Your task to perform on an android device: Go to notification settings Image 0: 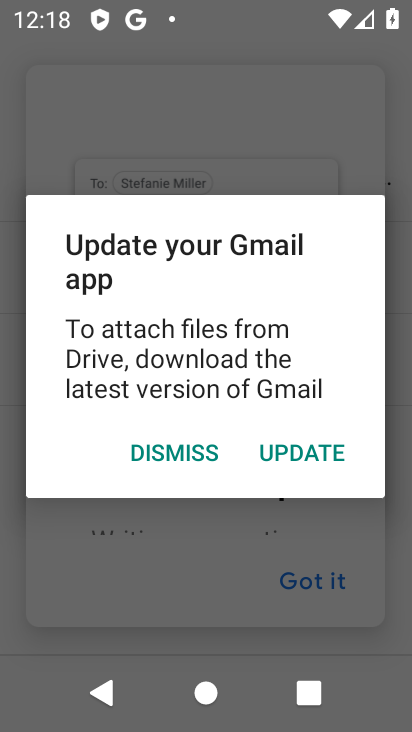
Step 0: press back button
Your task to perform on an android device: Go to notification settings Image 1: 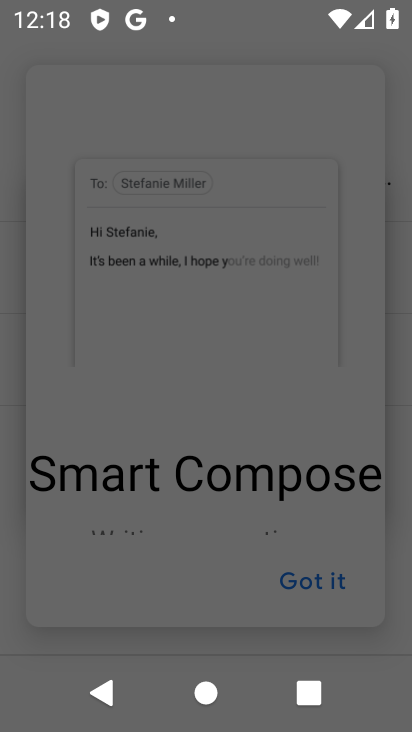
Step 1: press home button
Your task to perform on an android device: Go to notification settings Image 2: 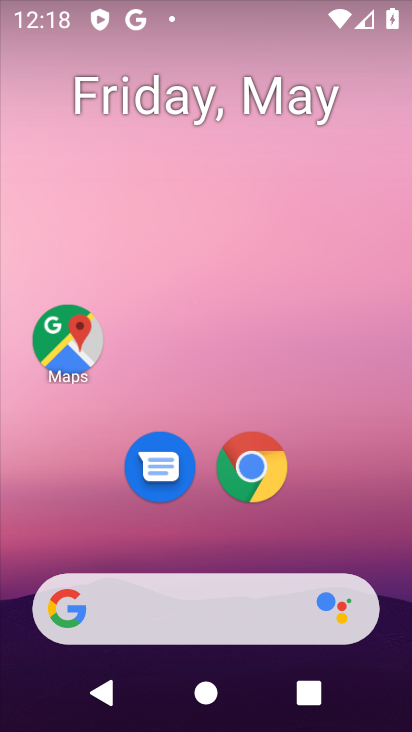
Step 2: drag from (351, 546) to (222, 105)
Your task to perform on an android device: Go to notification settings Image 3: 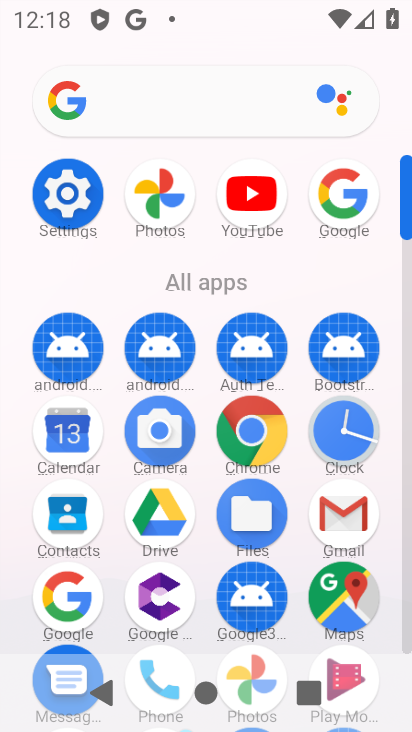
Step 3: click (68, 195)
Your task to perform on an android device: Go to notification settings Image 4: 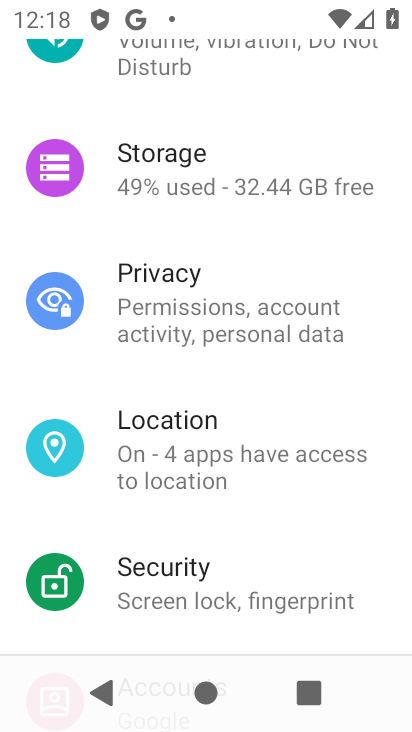
Step 4: drag from (89, 242) to (136, 382)
Your task to perform on an android device: Go to notification settings Image 5: 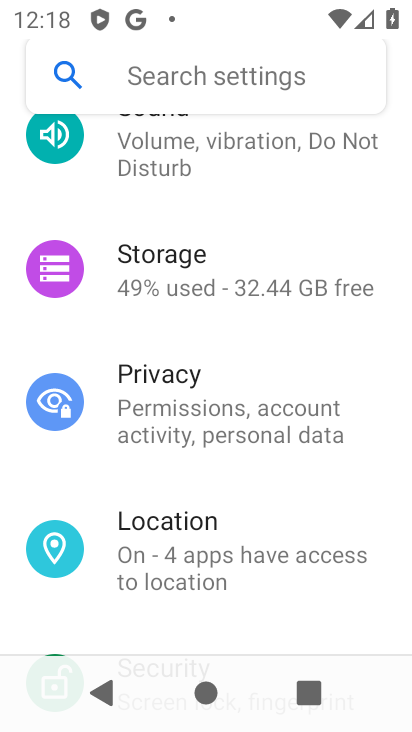
Step 5: drag from (107, 212) to (138, 373)
Your task to perform on an android device: Go to notification settings Image 6: 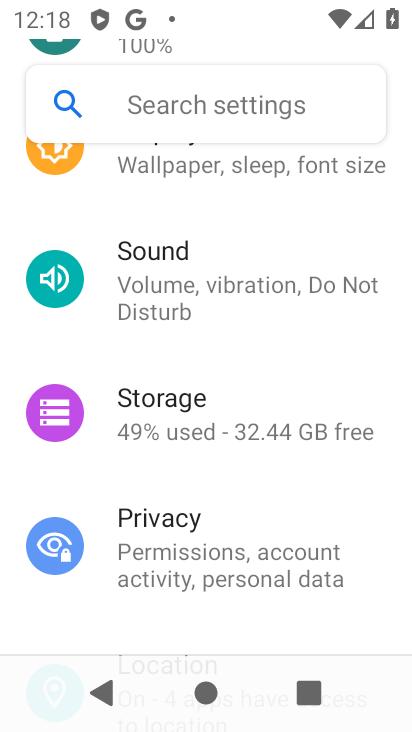
Step 6: drag from (101, 241) to (135, 372)
Your task to perform on an android device: Go to notification settings Image 7: 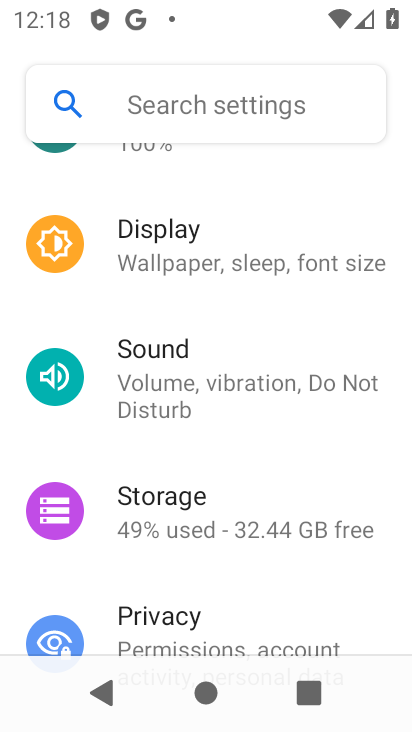
Step 7: drag from (93, 286) to (116, 386)
Your task to perform on an android device: Go to notification settings Image 8: 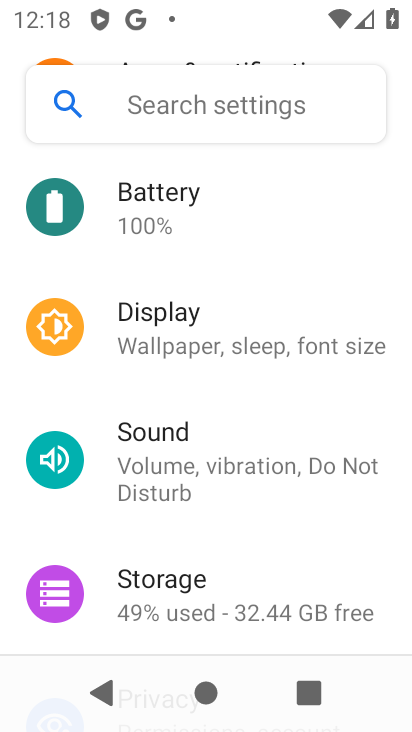
Step 8: drag from (91, 260) to (98, 378)
Your task to perform on an android device: Go to notification settings Image 9: 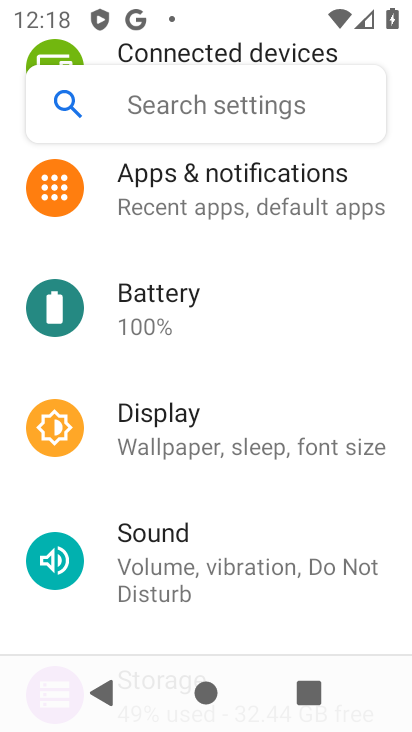
Step 9: drag from (83, 272) to (105, 408)
Your task to perform on an android device: Go to notification settings Image 10: 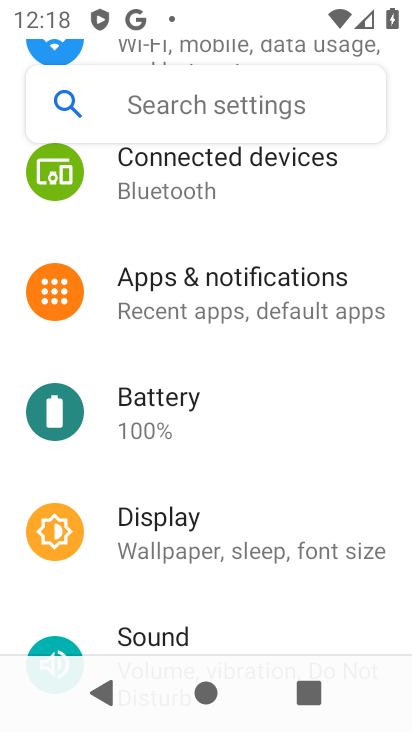
Step 10: click (217, 274)
Your task to perform on an android device: Go to notification settings Image 11: 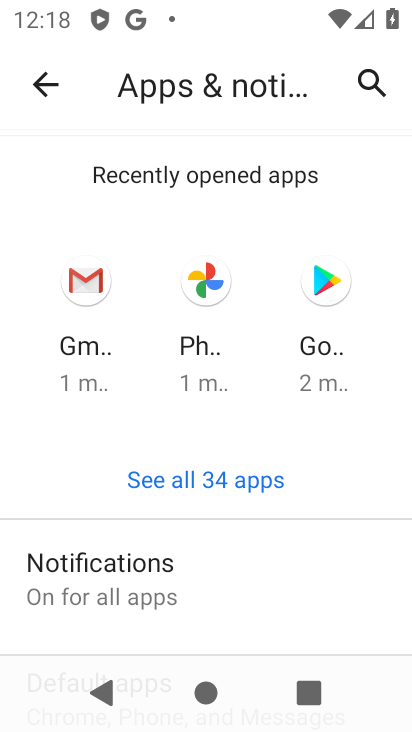
Step 11: click (131, 562)
Your task to perform on an android device: Go to notification settings Image 12: 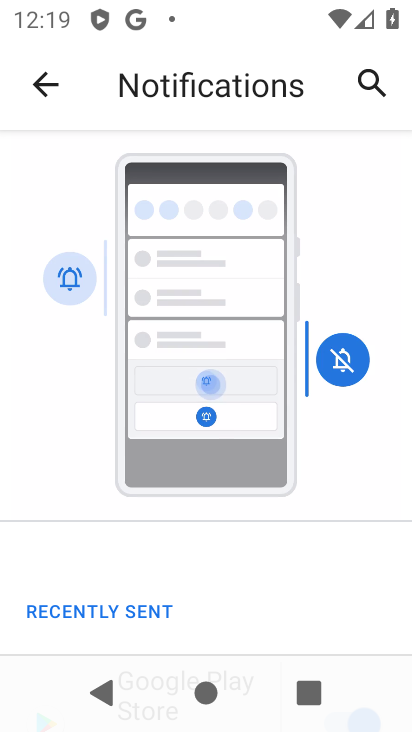
Step 12: task complete